Your task to perform on an android device: Open Maps and search for coffee Image 0: 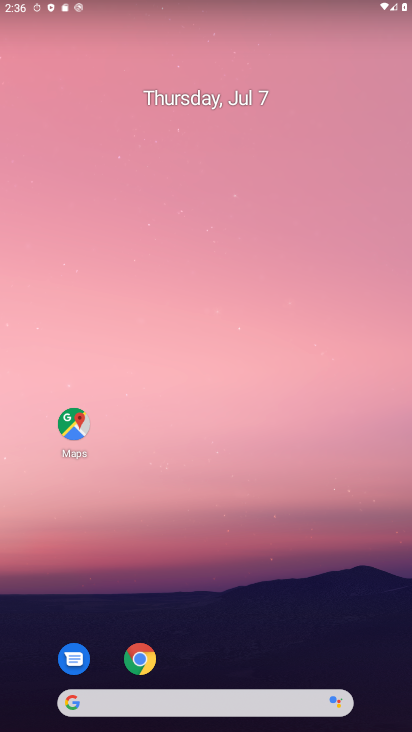
Step 0: drag from (26, 701) to (170, 32)
Your task to perform on an android device: Open Maps and search for coffee Image 1: 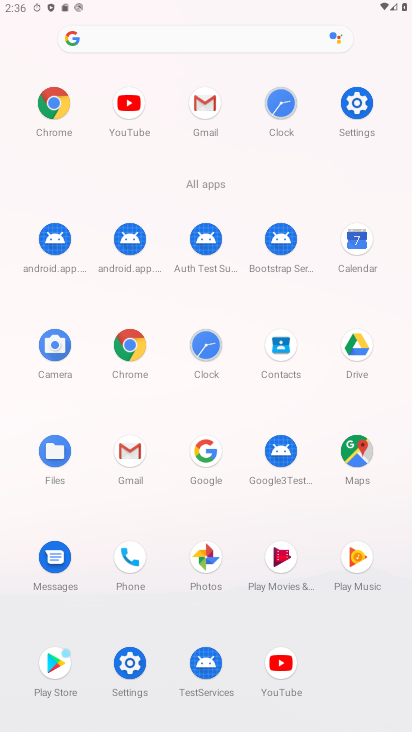
Step 1: click (339, 451)
Your task to perform on an android device: Open Maps and search for coffee Image 2: 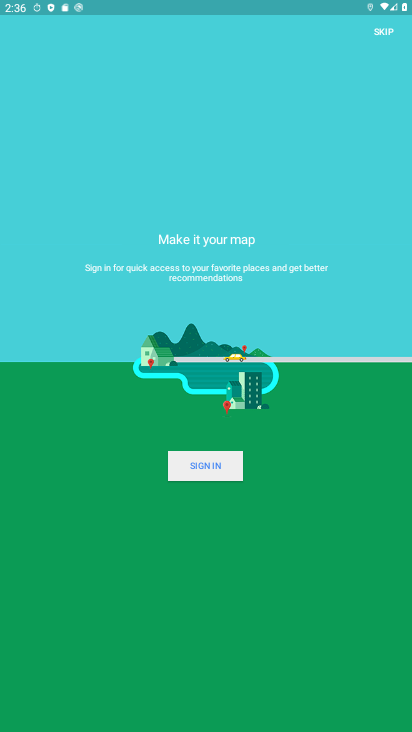
Step 2: click (201, 470)
Your task to perform on an android device: Open Maps and search for coffee Image 3: 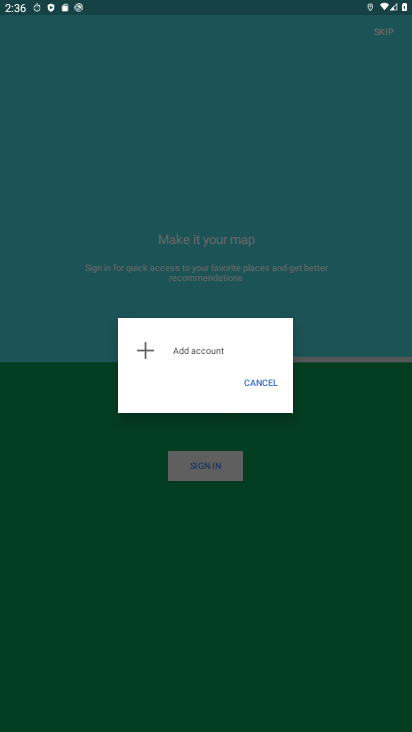
Step 3: click (251, 388)
Your task to perform on an android device: Open Maps and search for coffee Image 4: 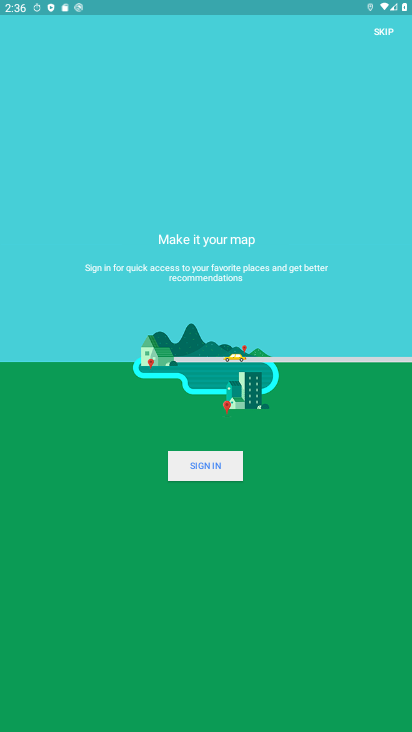
Step 4: task complete